Your task to perform on an android device: toggle data saver in the chrome app Image 0: 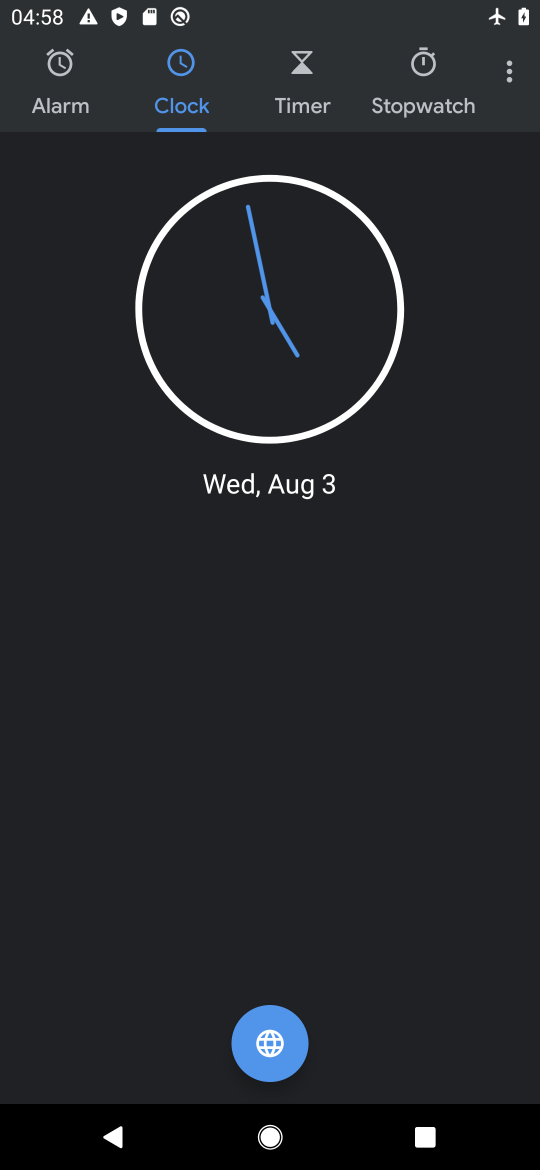
Step 0: press home button
Your task to perform on an android device: toggle data saver in the chrome app Image 1: 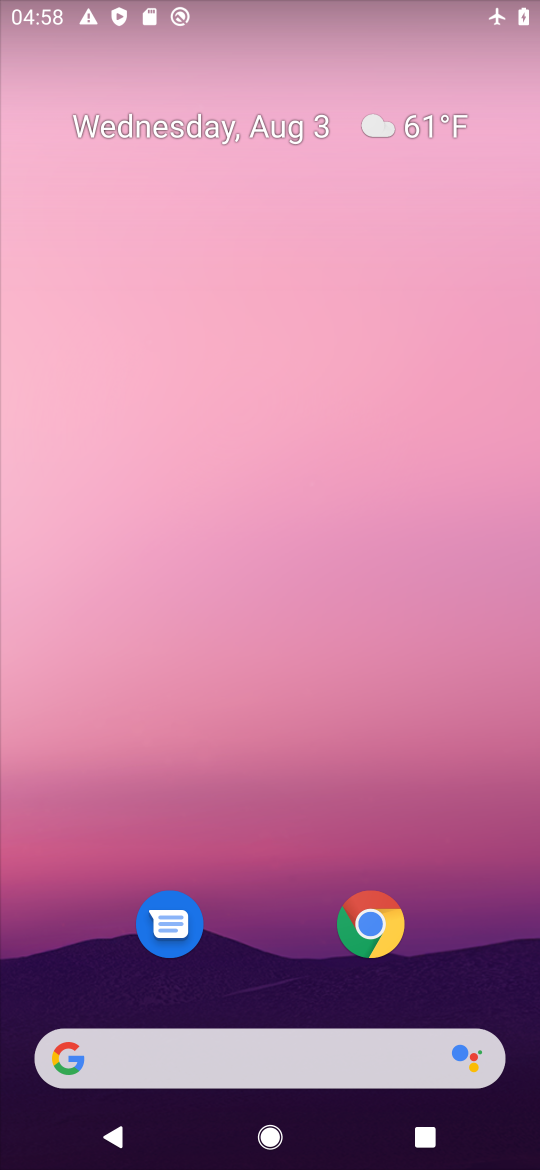
Step 1: click (349, 924)
Your task to perform on an android device: toggle data saver in the chrome app Image 2: 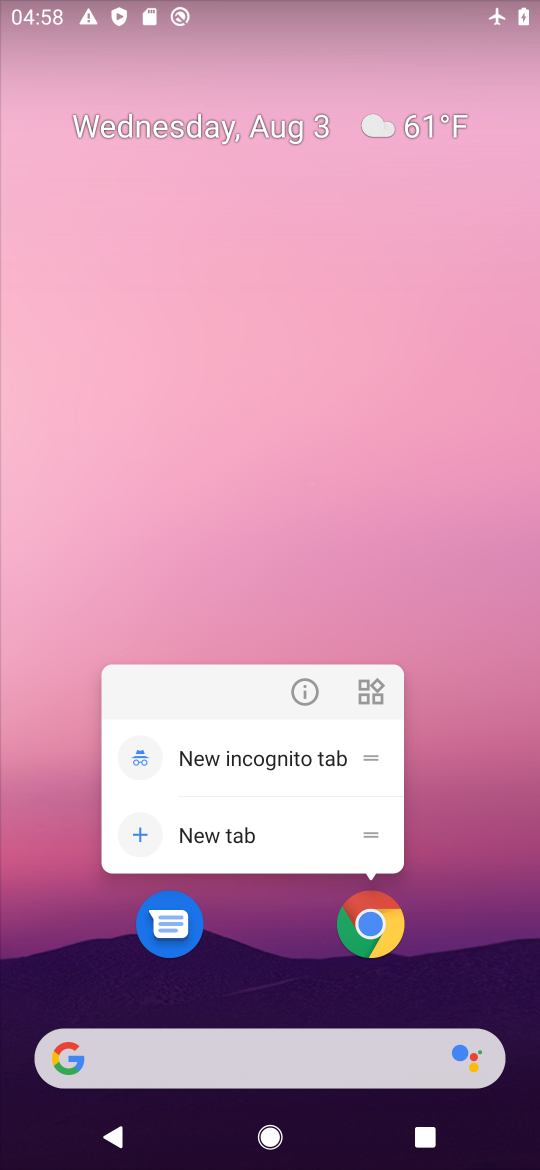
Step 2: click (349, 924)
Your task to perform on an android device: toggle data saver in the chrome app Image 3: 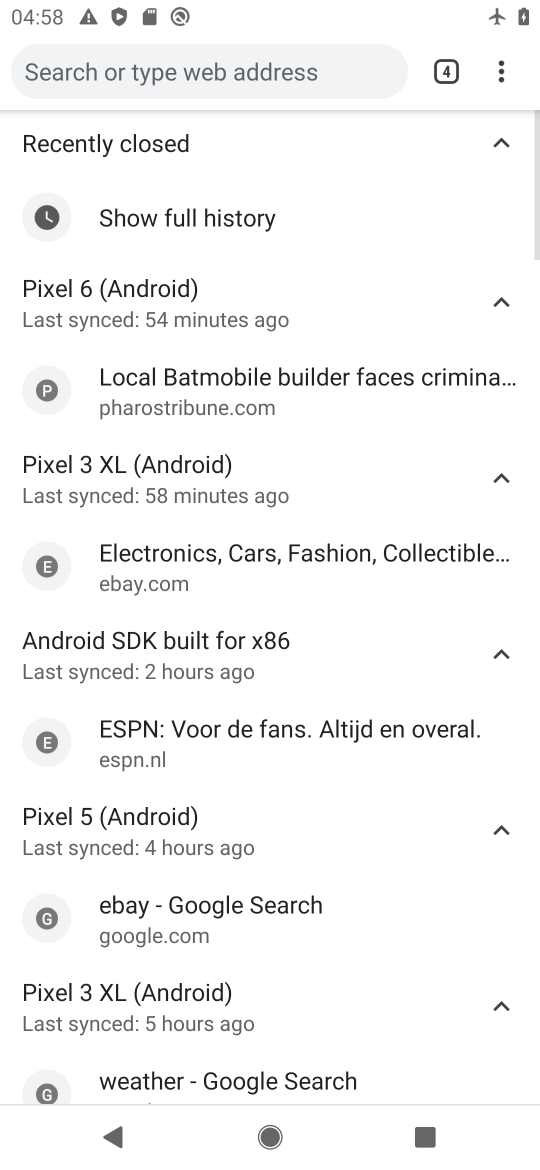
Step 3: click (488, 88)
Your task to perform on an android device: toggle data saver in the chrome app Image 4: 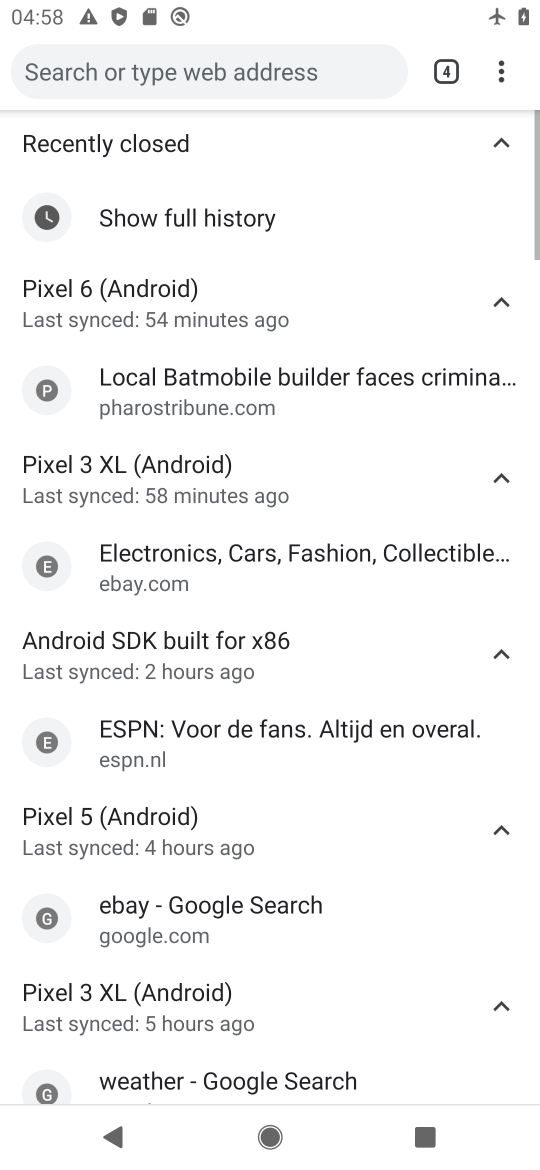
Step 4: click (493, 70)
Your task to perform on an android device: toggle data saver in the chrome app Image 5: 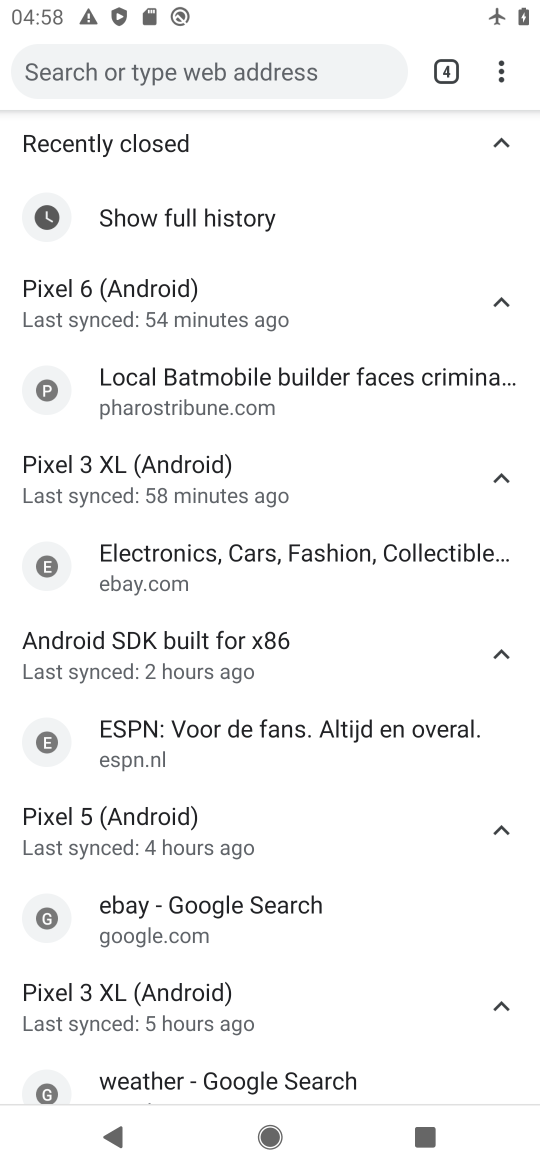
Step 5: click (495, 70)
Your task to perform on an android device: toggle data saver in the chrome app Image 6: 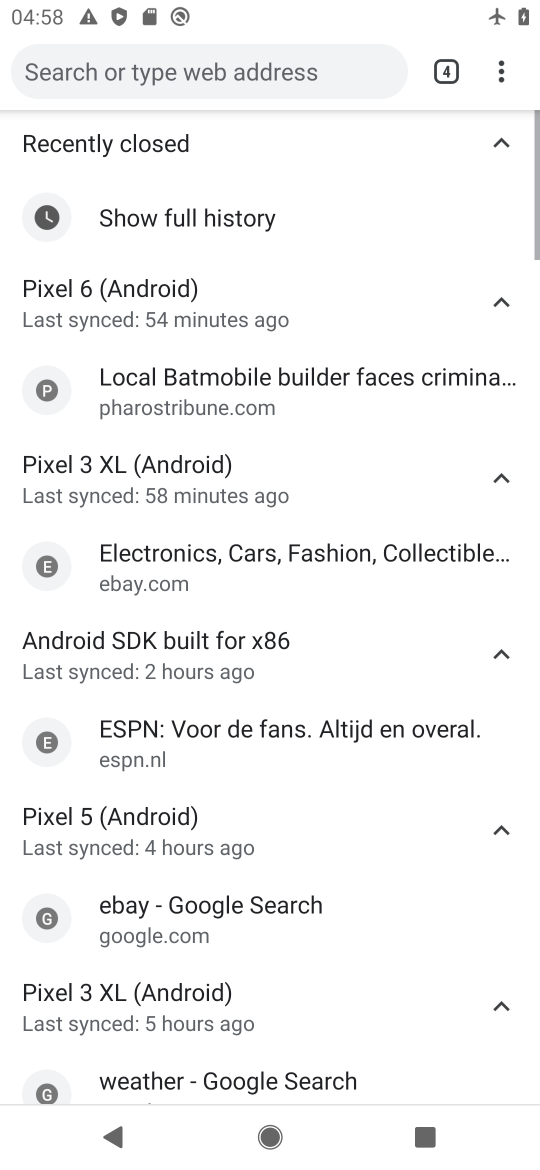
Step 6: drag from (496, 68) to (278, 598)
Your task to perform on an android device: toggle data saver in the chrome app Image 7: 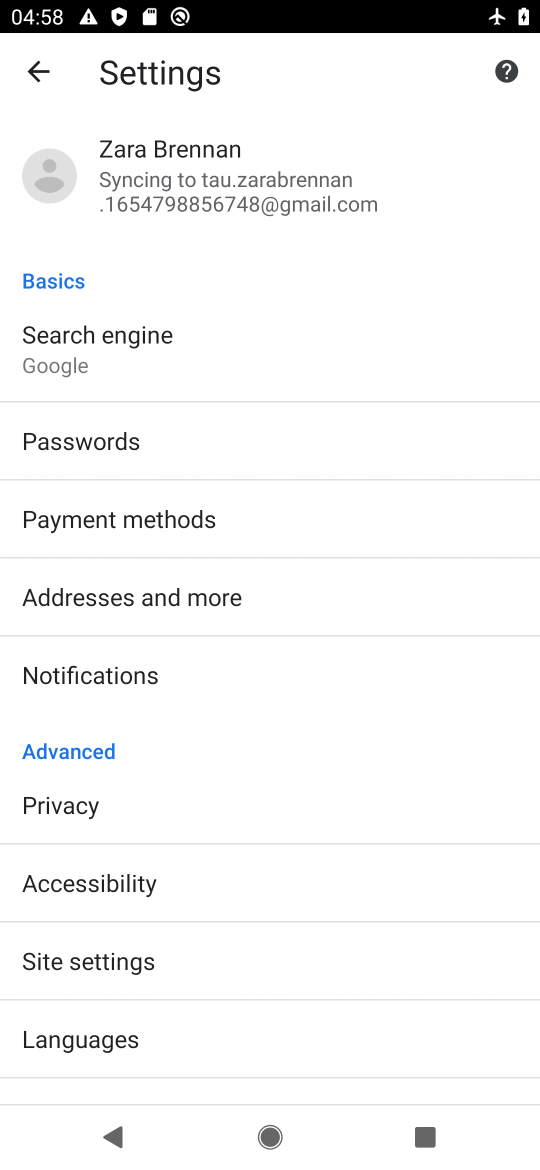
Step 7: drag from (148, 979) to (150, 616)
Your task to perform on an android device: toggle data saver in the chrome app Image 8: 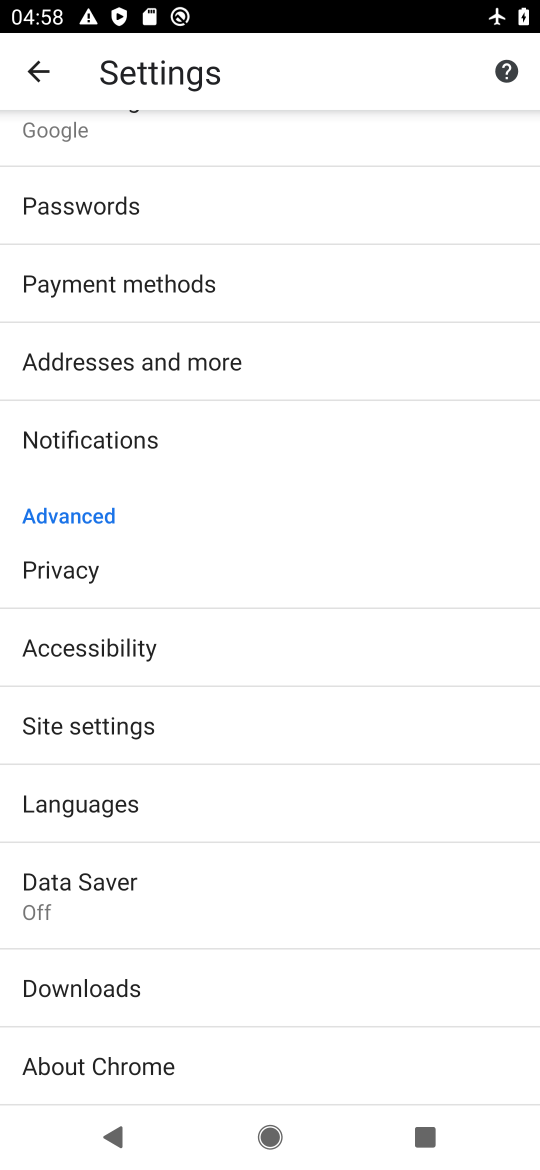
Step 8: click (137, 866)
Your task to perform on an android device: toggle data saver in the chrome app Image 9: 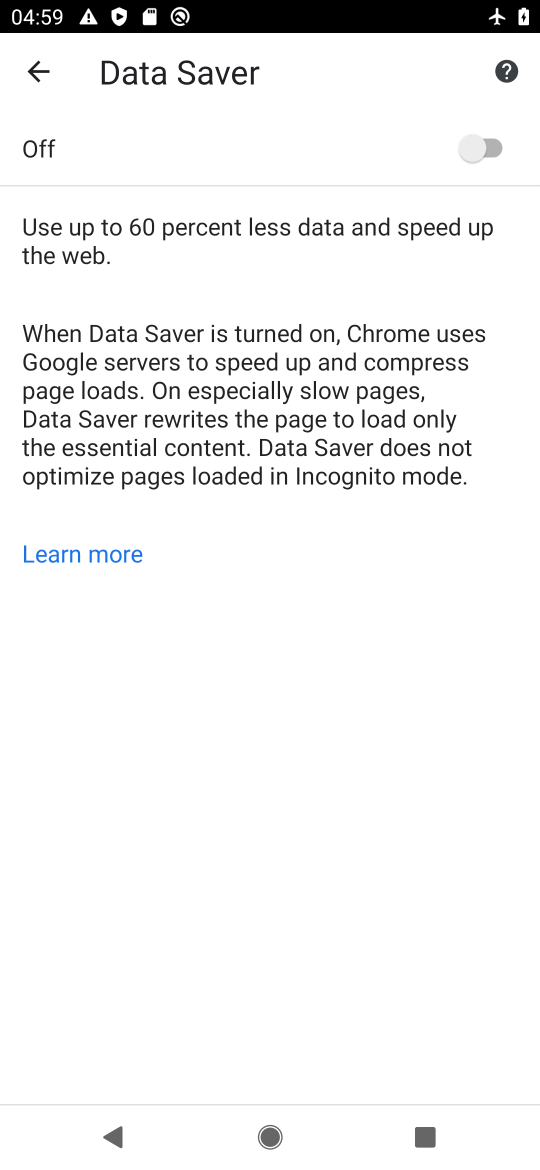
Step 9: click (501, 139)
Your task to perform on an android device: toggle data saver in the chrome app Image 10: 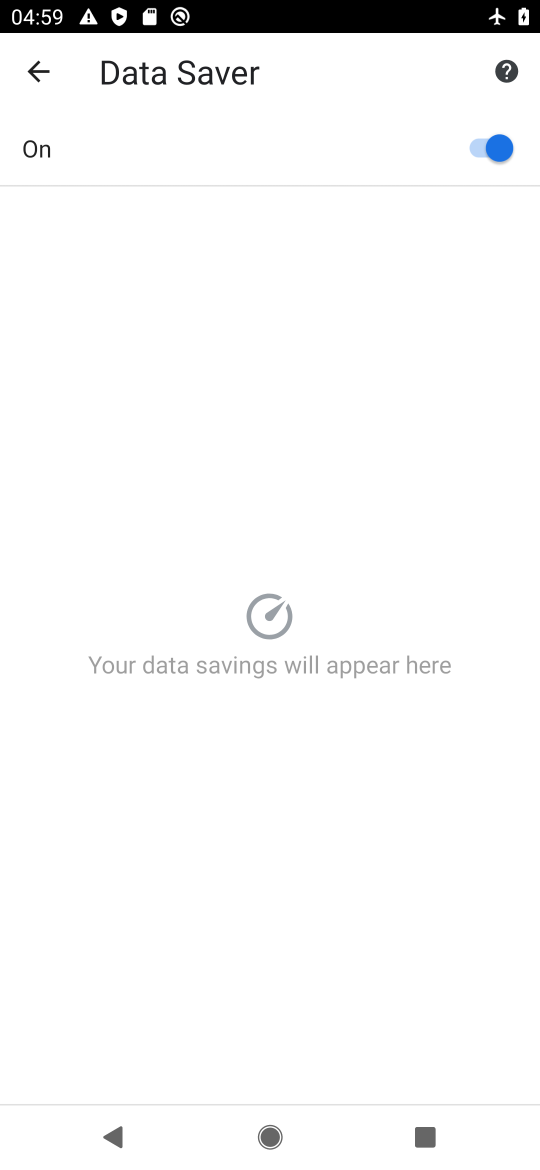
Step 10: task complete